Your task to perform on an android device: turn pop-ups off in chrome Image 0: 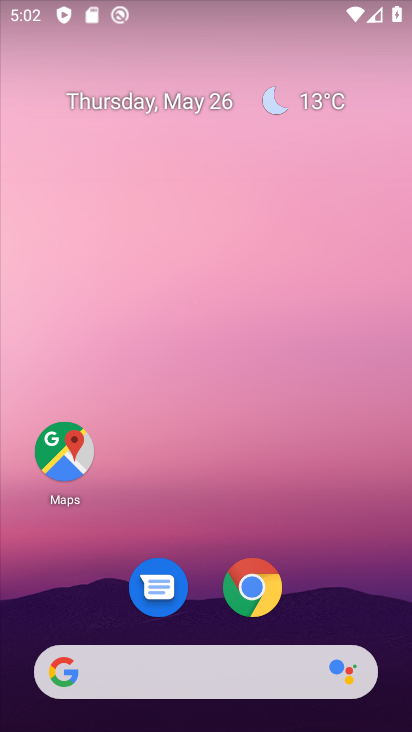
Step 0: click (254, 587)
Your task to perform on an android device: turn pop-ups off in chrome Image 1: 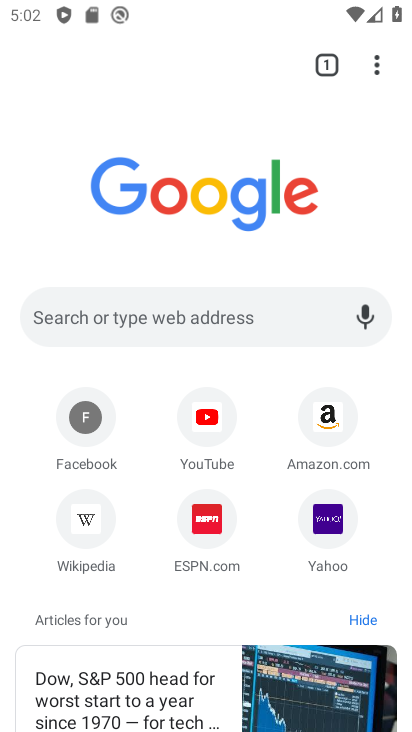
Step 1: click (376, 71)
Your task to perform on an android device: turn pop-ups off in chrome Image 2: 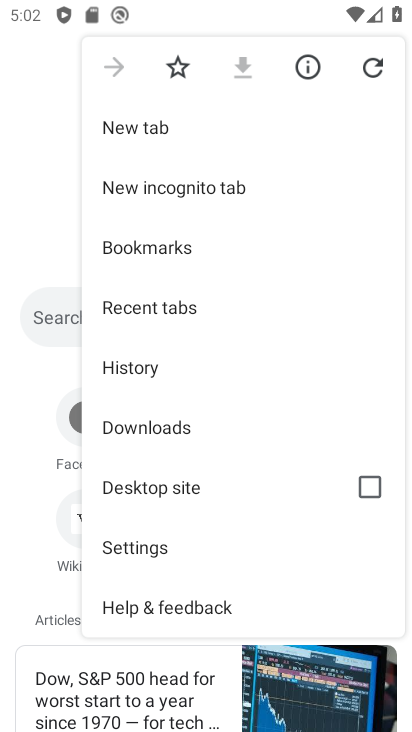
Step 2: click (110, 548)
Your task to perform on an android device: turn pop-ups off in chrome Image 3: 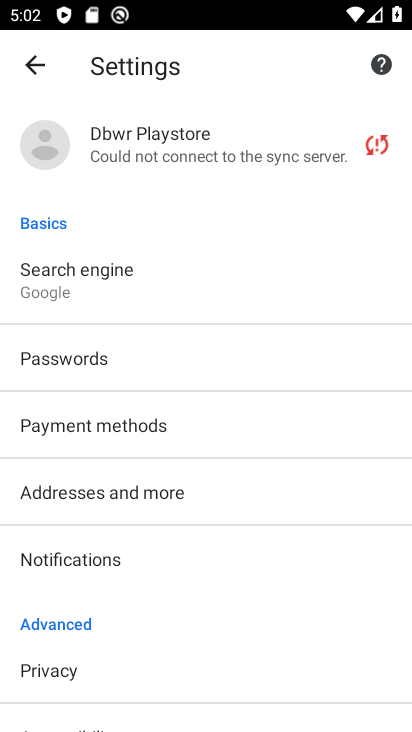
Step 3: drag from (120, 641) to (123, 312)
Your task to perform on an android device: turn pop-ups off in chrome Image 4: 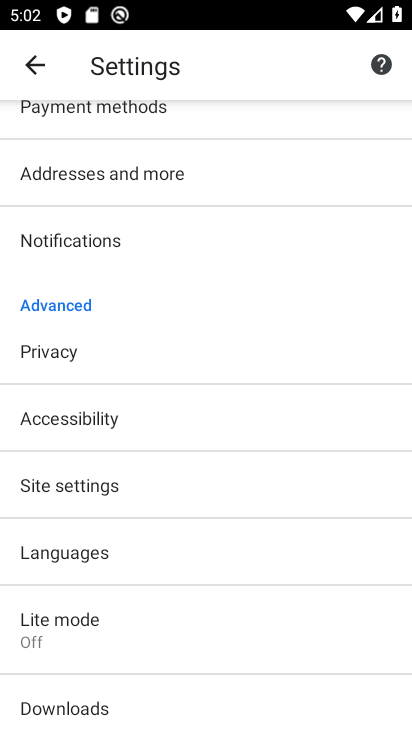
Step 4: click (92, 486)
Your task to perform on an android device: turn pop-ups off in chrome Image 5: 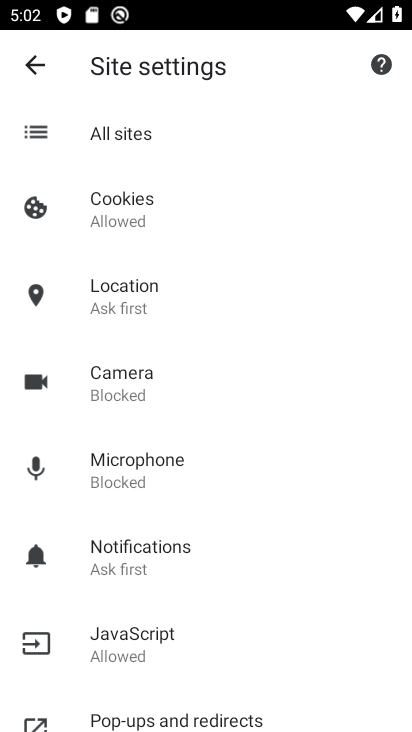
Step 5: drag from (189, 676) to (189, 301)
Your task to perform on an android device: turn pop-ups off in chrome Image 6: 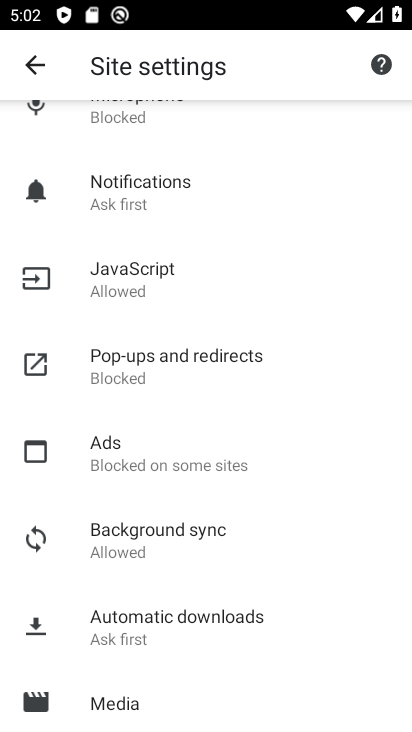
Step 6: click (122, 355)
Your task to perform on an android device: turn pop-ups off in chrome Image 7: 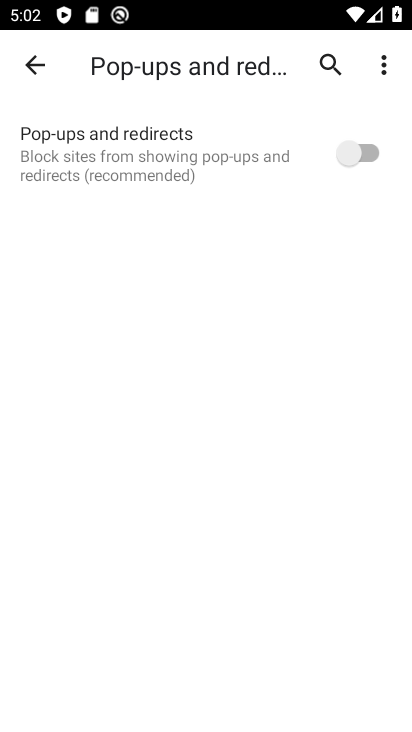
Step 7: task complete